Your task to perform on an android device: Open Google Chrome and click the shortcut for Amazon.com Image 0: 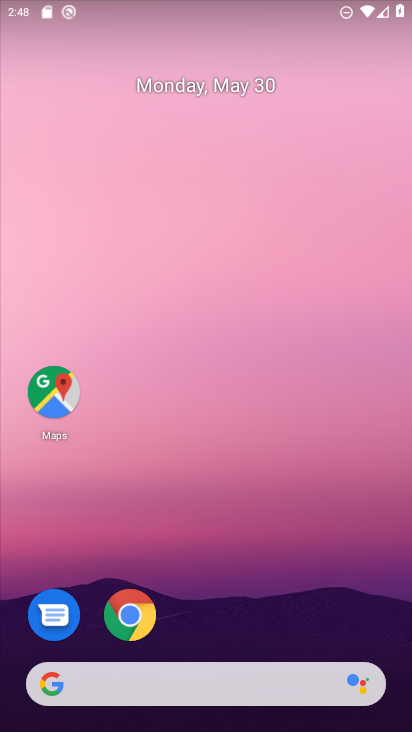
Step 0: click (131, 622)
Your task to perform on an android device: Open Google Chrome and click the shortcut for Amazon.com Image 1: 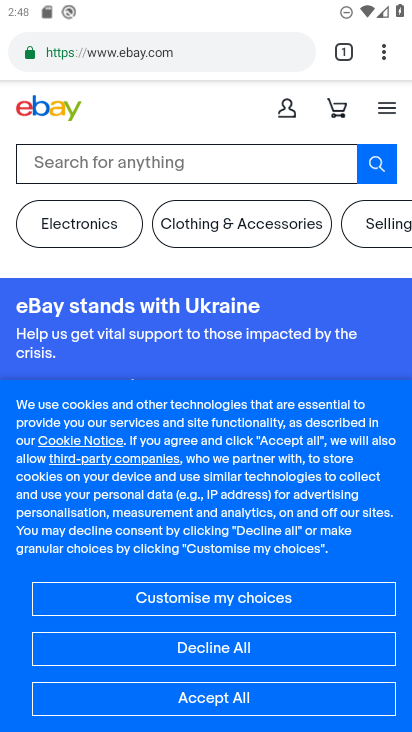
Step 1: drag from (391, 43) to (326, 100)
Your task to perform on an android device: Open Google Chrome and click the shortcut for Amazon.com Image 2: 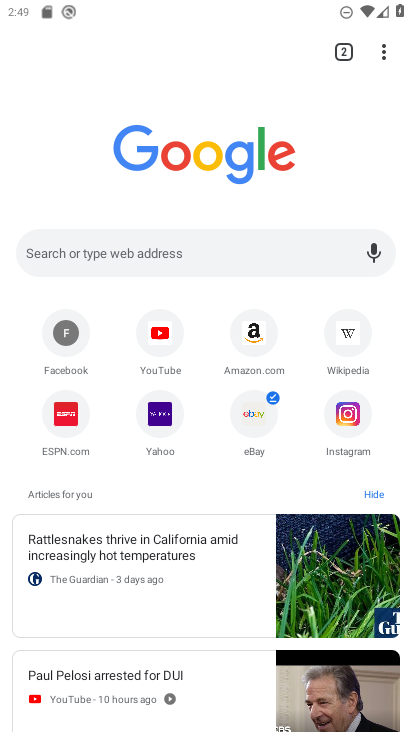
Step 2: click (269, 328)
Your task to perform on an android device: Open Google Chrome and click the shortcut for Amazon.com Image 3: 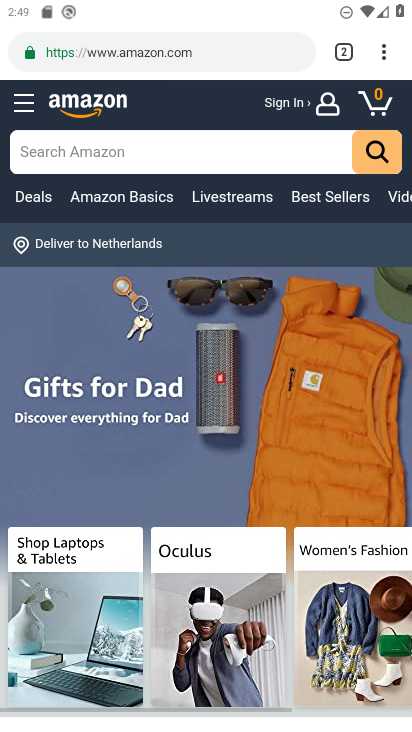
Step 3: task complete